Your task to perform on an android device: Open wifi settings Image 0: 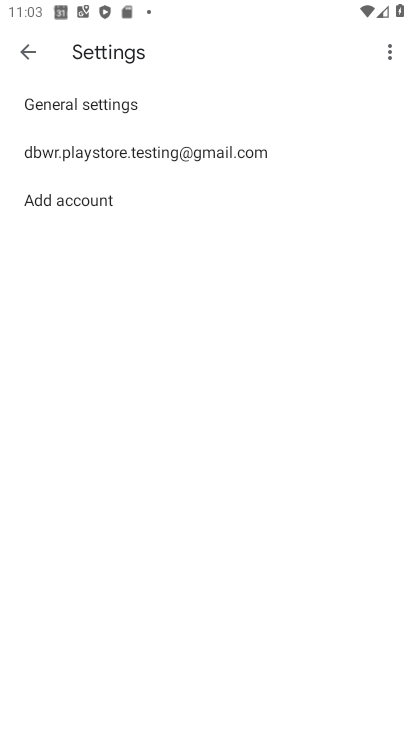
Step 0: press home button
Your task to perform on an android device: Open wifi settings Image 1: 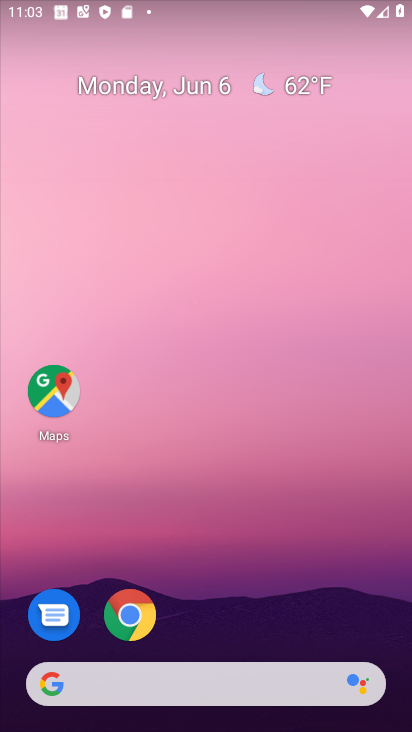
Step 1: drag from (141, 678) to (143, 32)
Your task to perform on an android device: Open wifi settings Image 2: 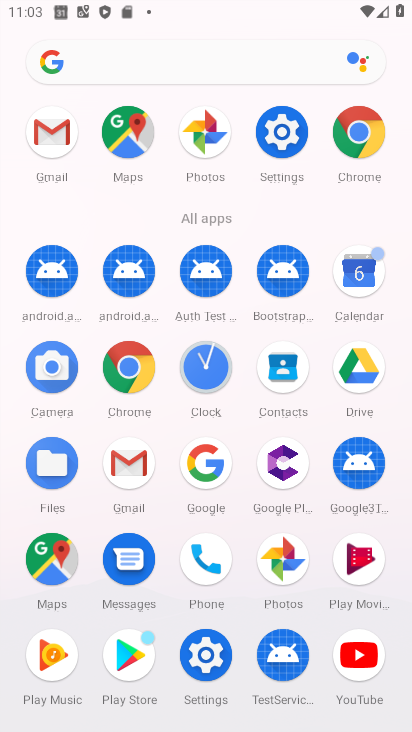
Step 2: click (282, 123)
Your task to perform on an android device: Open wifi settings Image 3: 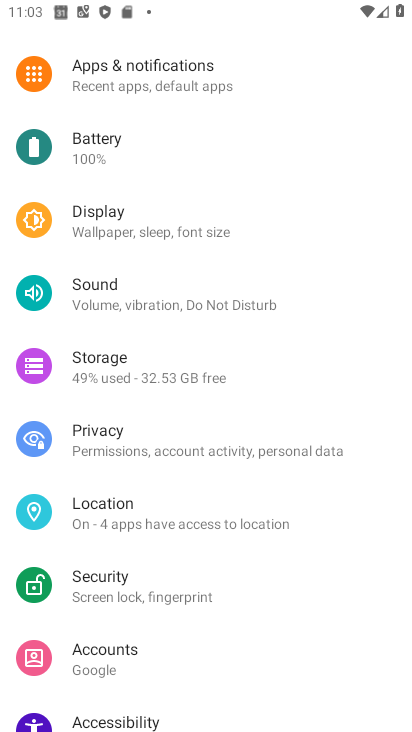
Step 3: drag from (166, 109) to (186, 604)
Your task to perform on an android device: Open wifi settings Image 4: 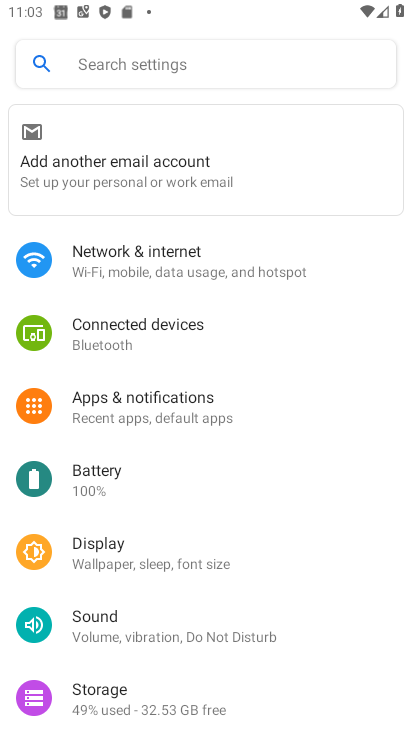
Step 4: click (134, 257)
Your task to perform on an android device: Open wifi settings Image 5: 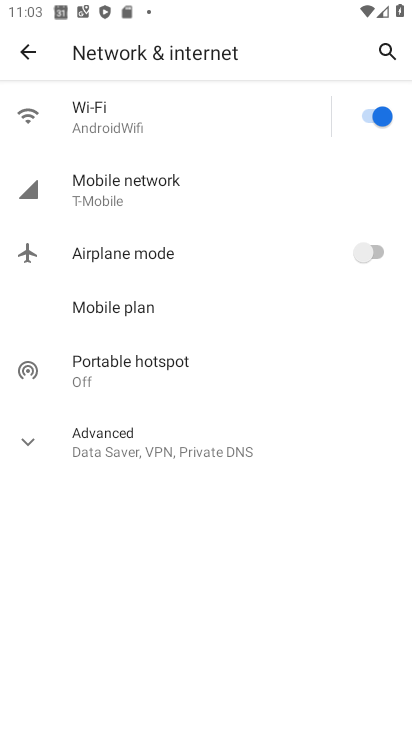
Step 5: click (92, 118)
Your task to perform on an android device: Open wifi settings Image 6: 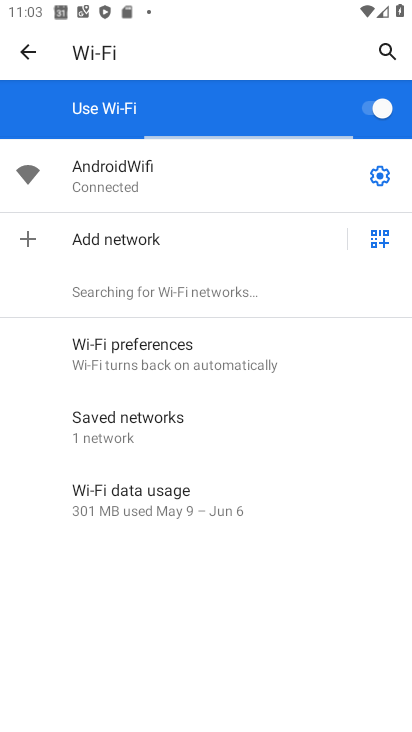
Step 6: task complete